Your task to perform on an android device: change the clock display to show seconds Image 0: 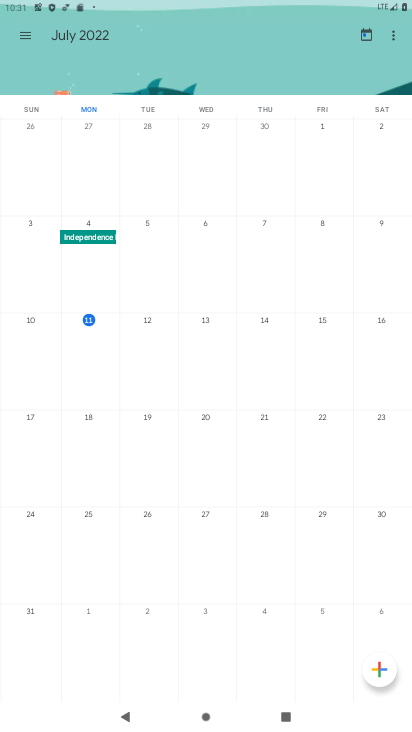
Step 0: press home button
Your task to perform on an android device: change the clock display to show seconds Image 1: 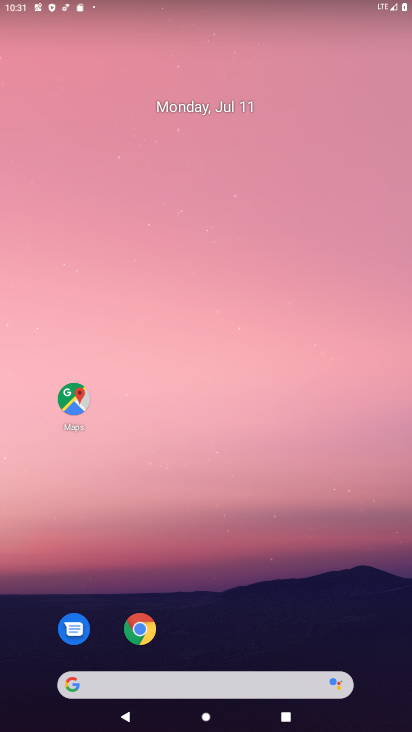
Step 1: drag from (201, 603) to (277, 213)
Your task to perform on an android device: change the clock display to show seconds Image 2: 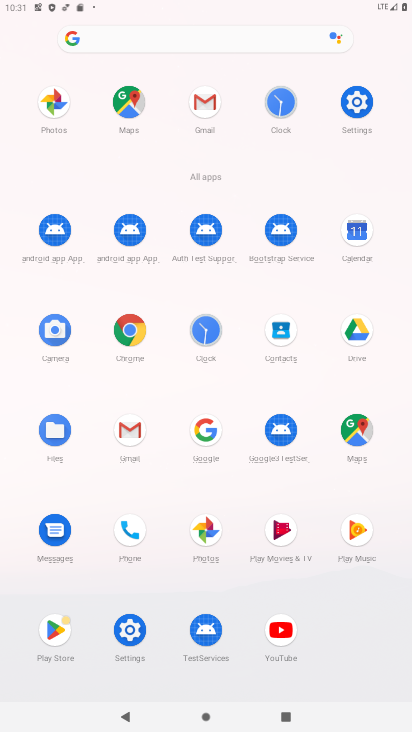
Step 2: click (209, 335)
Your task to perform on an android device: change the clock display to show seconds Image 3: 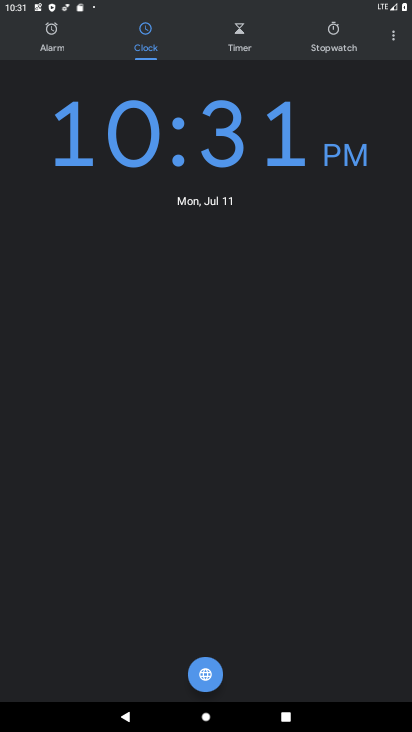
Step 3: click (389, 33)
Your task to perform on an android device: change the clock display to show seconds Image 4: 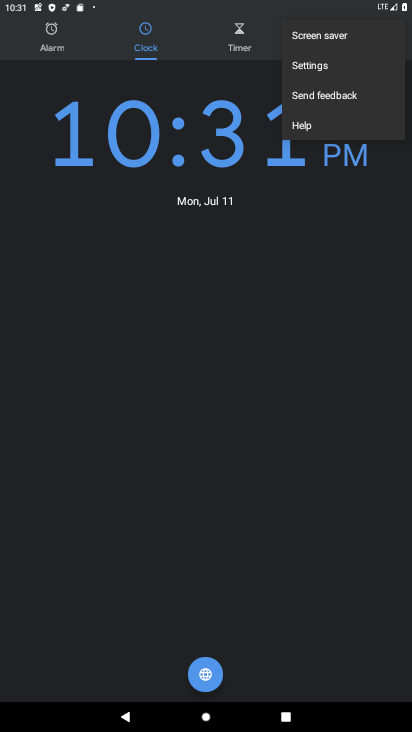
Step 4: click (335, 75)
Your task to perform on an android device: change the clock display to show seconds Image 5: 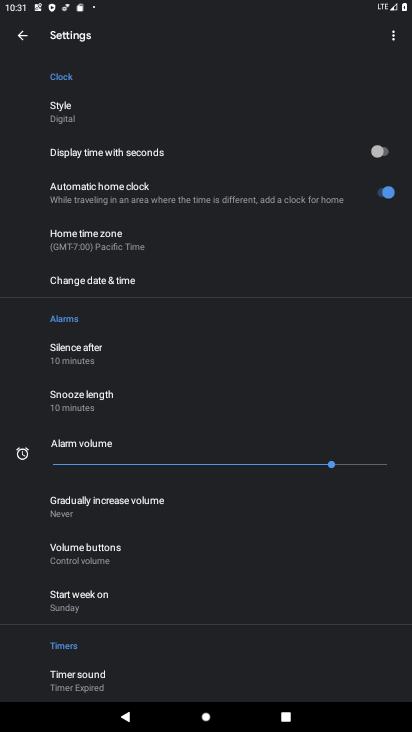
Step 5: click (394, 151)
Your task to perform on an android device: change the clock display to show seconds Image 6: 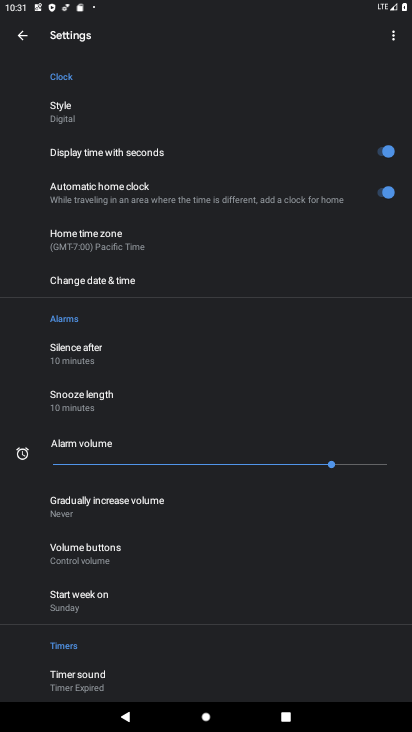
Step 6: task complete